Your task to perform on an android device: Open sound settings Image 0: 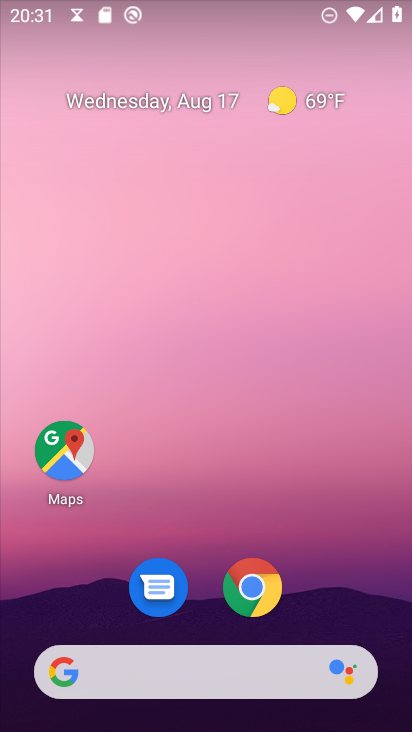
Step 0: drag from (29, 703) to (210, 275)
Your task to perform on an android device: Open sound settings Image 1: 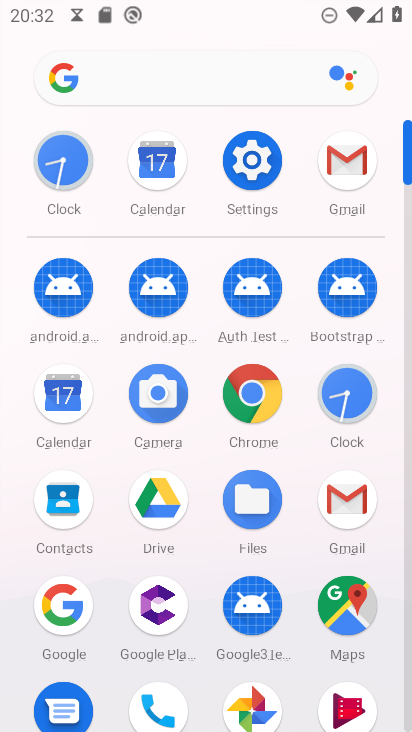
Step 1: click (255, 165)
Your task to perform on an android device: Open sound settings Image 2: 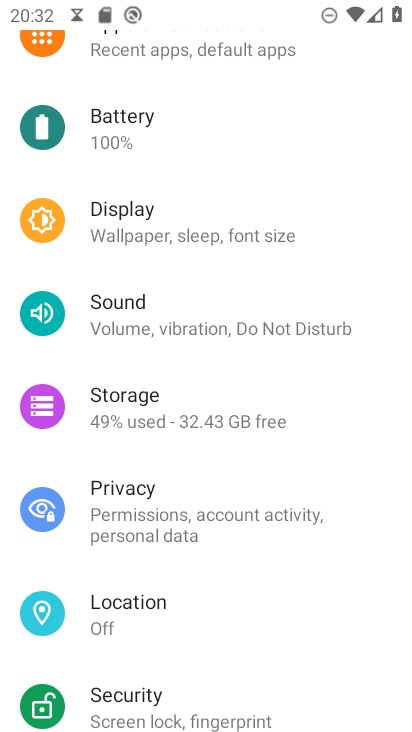
Step 2: click (138, 318)
Your task to perform on an android device: Open sound settings Image 3: 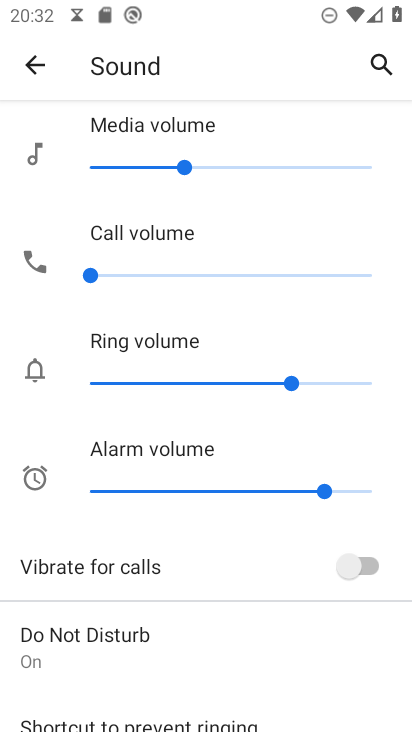
Step 3: task complete